Your task to perform on an android device: check storage Image 0: 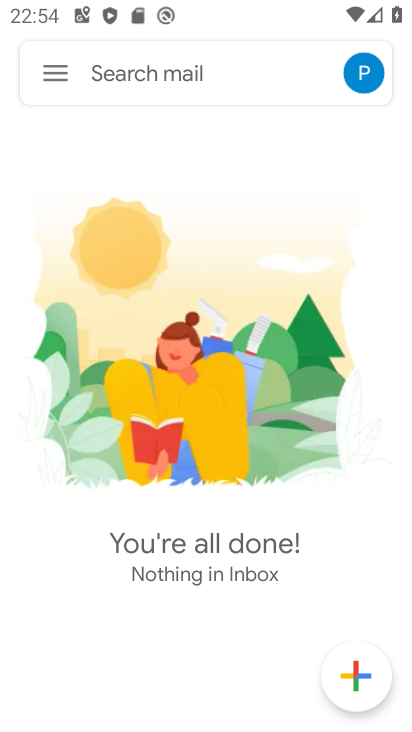
Step 0: press home button
Your task to perform on an android device: check storage Image 1: 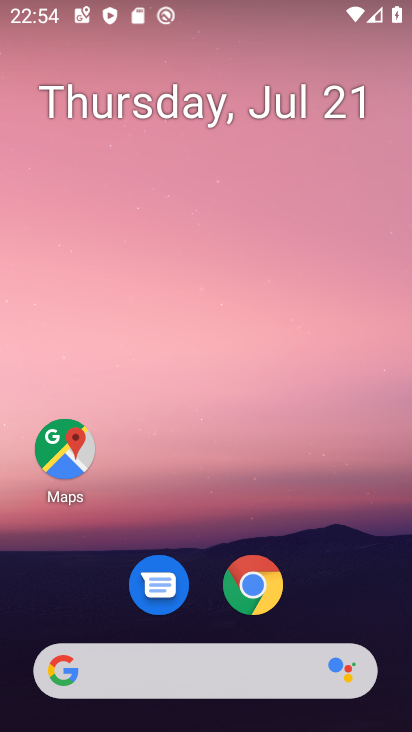
Step 1: drag from (233, 574) to (348, 139)
Your task to perform on an android device: check storage Image 2: 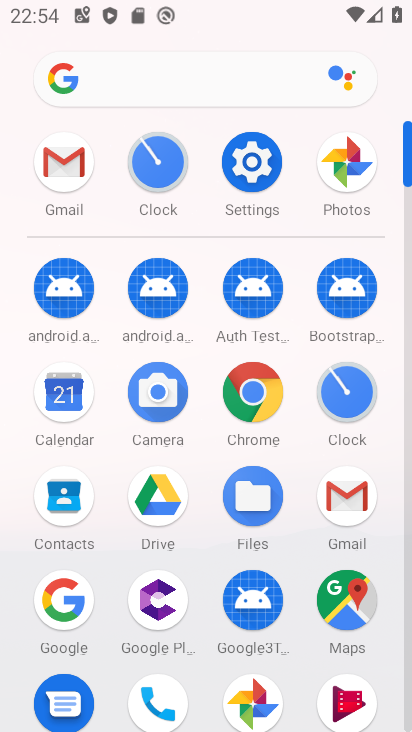
Step 2: click (245, 151)
Your task to perform on an android device: check storage Image 3: 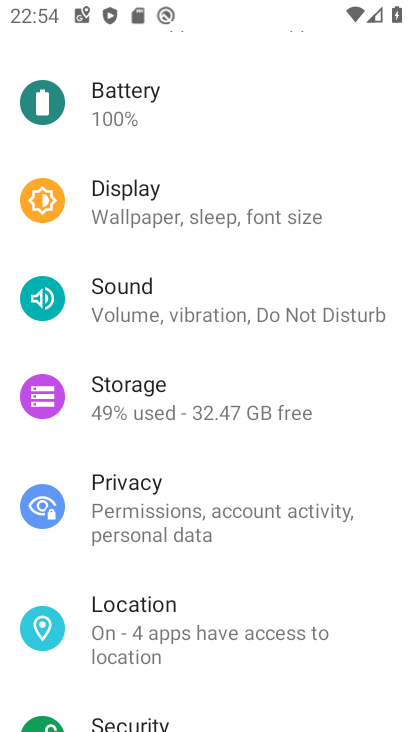
Step 3: click (147, 404)
Your task to perform on an android device: check storage Image 4: 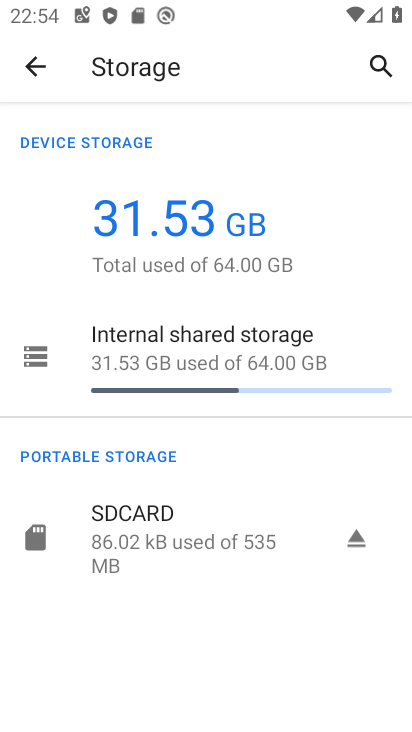
Step 4: task complete